Your task to perform on an android device: Open notification settings Image 0: 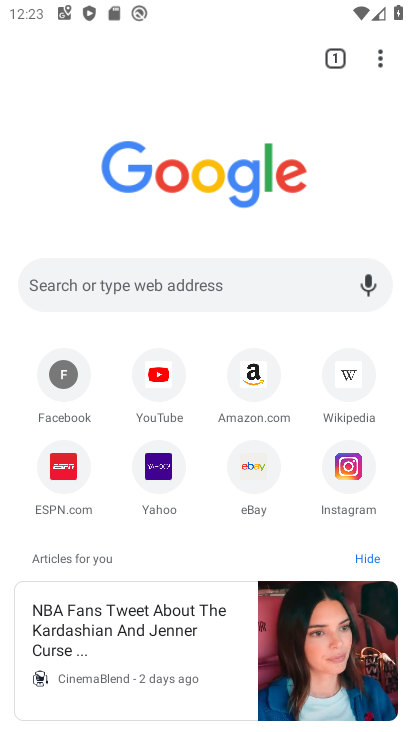
Step 0: press home button
Your task to perform on an android device: Open notification settings Image 1: 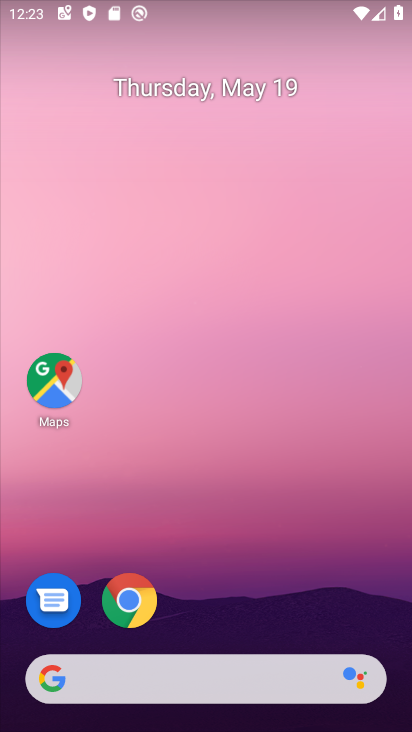
Step 1: drag from (300, 437) to (256, 15)
Your task to perform on an android device: Open notification settings Image 2: 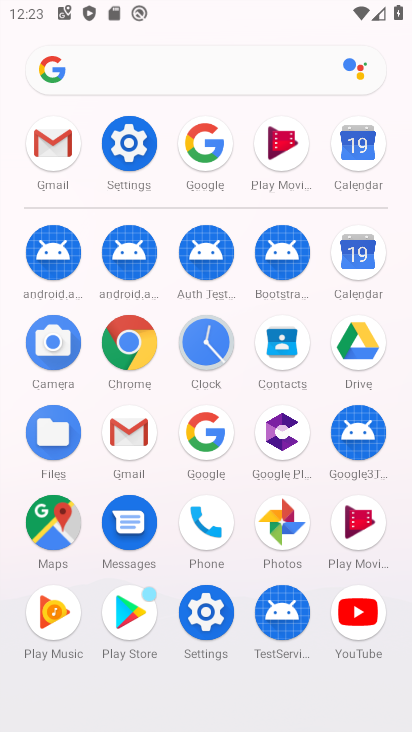
Step 2: click (207, 628)
Your task to perform on an android device: Open notification settings Image 3: 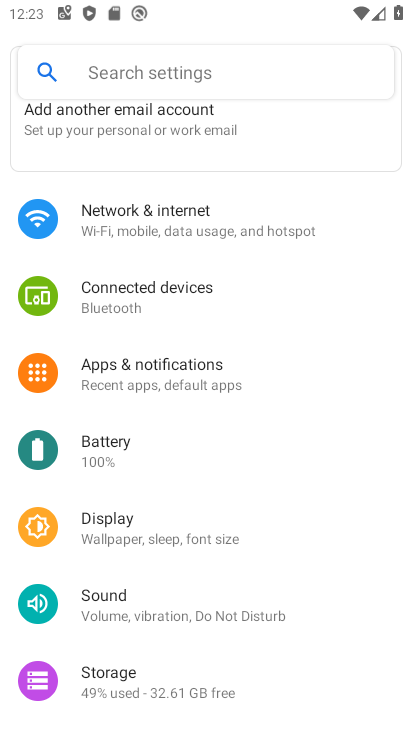
Step 3: click (209, 369)
Your task to perform on an android device: Open notification settings Image 4: 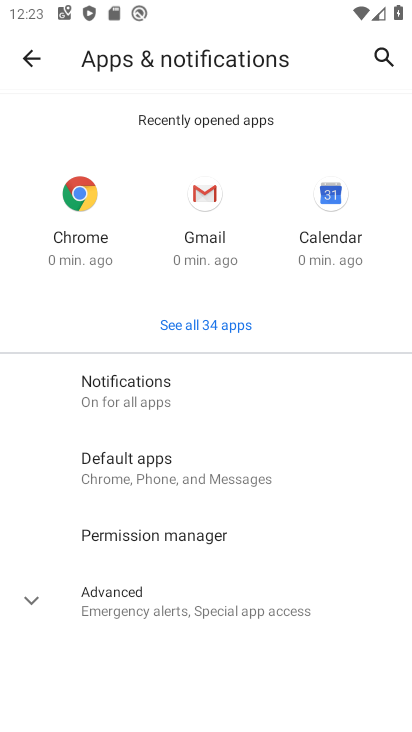
Step 4: task complete